Your task to perform on an android device: allow notifications from all sites in the chrome app Image 0: 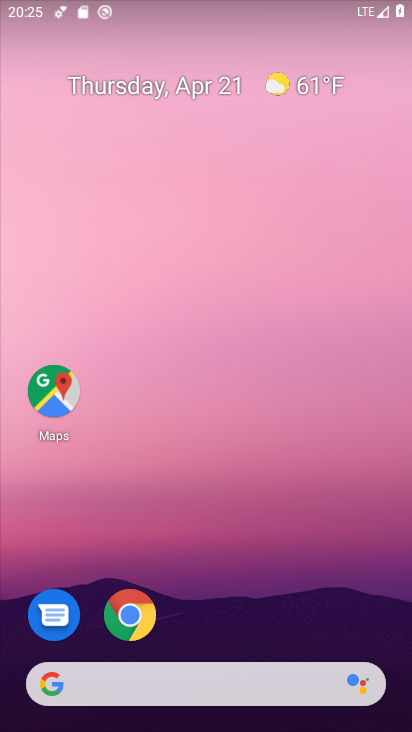
Step 0: click (215, 103)
Your task to perform on an android device: allow notifications from all sites in the chrome app Image 1: 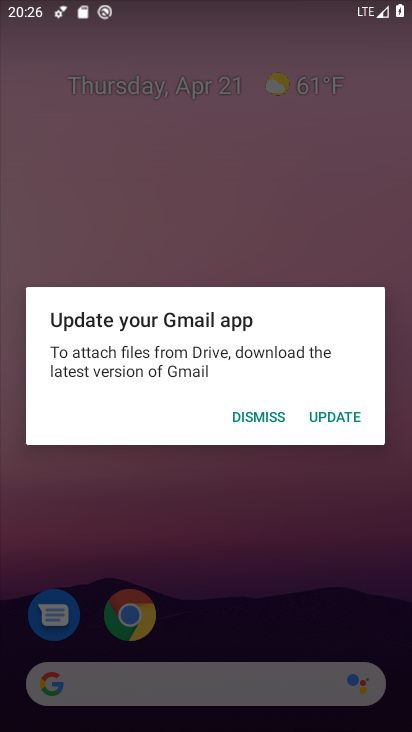
Step 1: press home button
Your task to perform on an android device: allow notifications from all sites in the chrome app Image 2: 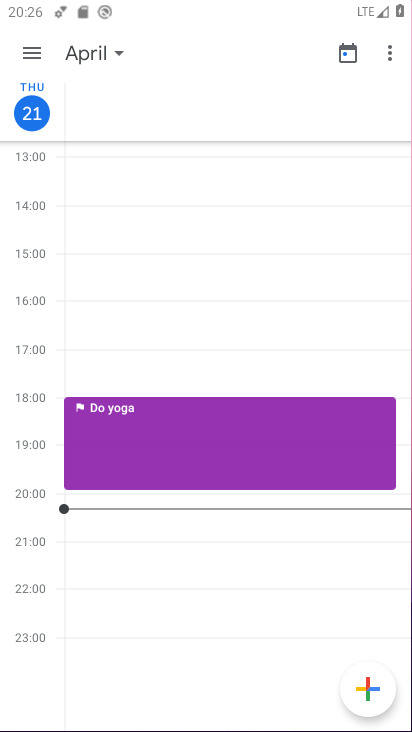
Step 2: drag from (216, 613) to (228, 19)
Your task to perform on an android device: allow notifications from all sites in the chrome app Image 3: 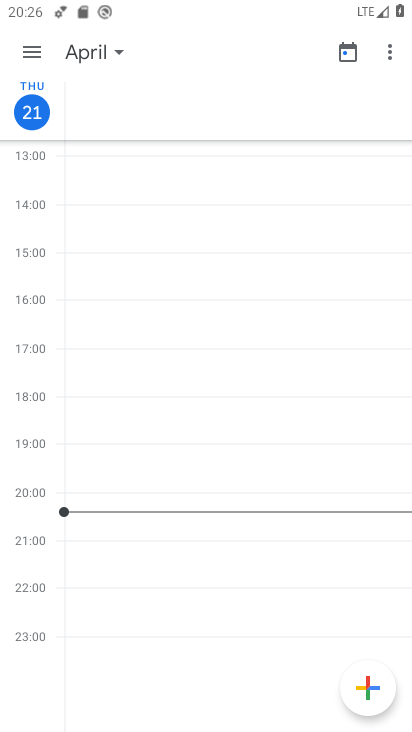
Step 3: drag from (220, 621) to (233, 243)
Your task to perform on an android device: allow notifications from all sites in the chrome app Image 4: 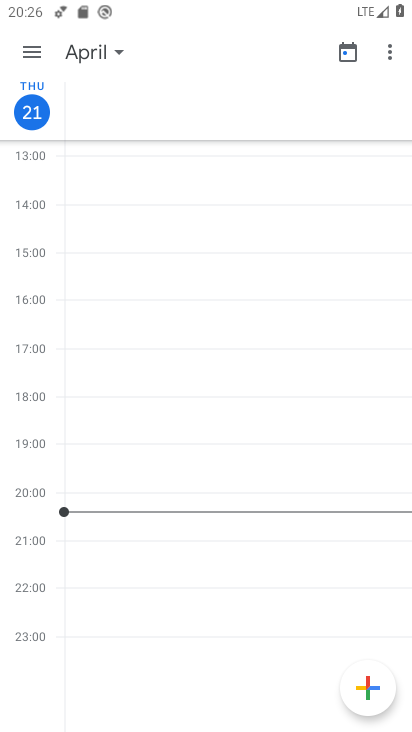
Step 4: drag from (230, 600) to (285, 263)
Your task to perform on an android device: allow notifications from all sites in the chrome app Image 5: 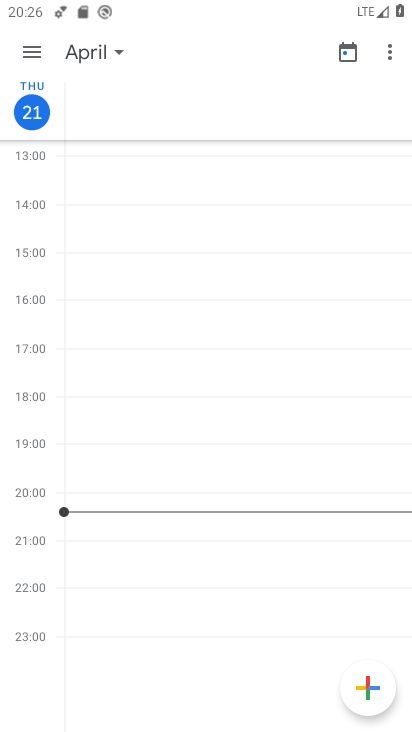
Step 5: drag from (209, 616) to (219, 202)
Your task to perform on an android device: allow notifications from all sites in the chrome app Image 6: 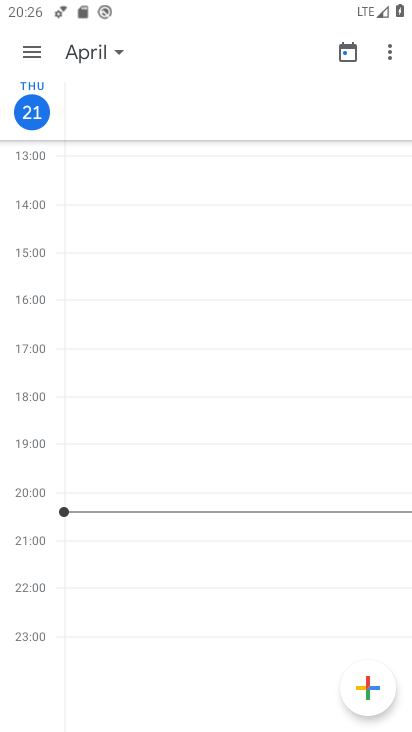
Step 6: click (81, 53)
Your task to perform on an android device: allow notifications from all sites in the chrome app Image 7: 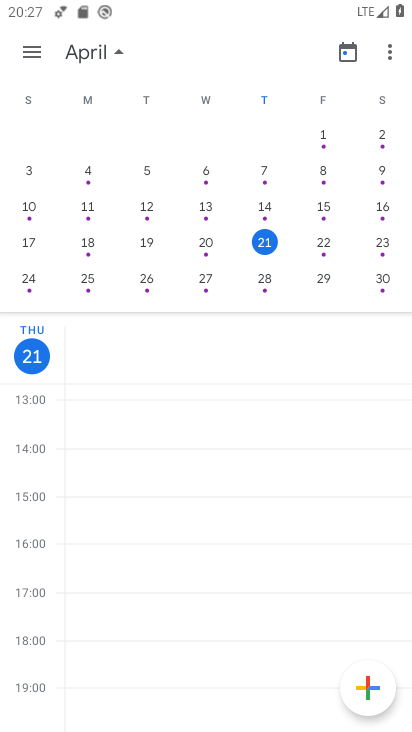
Step 7: press home button
Your task to perform on an android device: allow notifications from all sites in the chrome app Image 8: 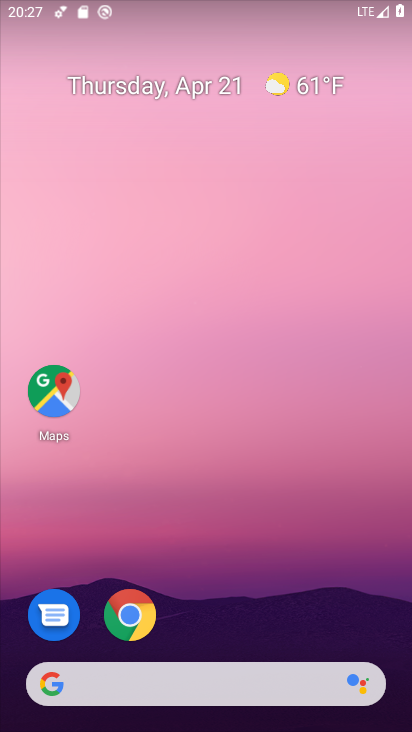
Step 8: click (136, 602)
Your task to perform on an android device: allow notifications from all sites in the chrome app Image 9: 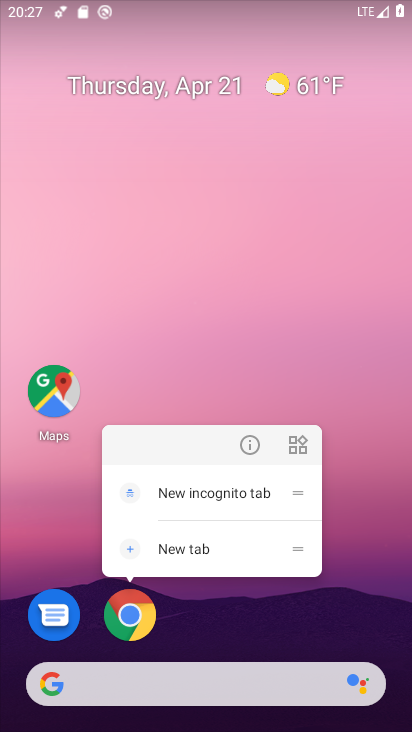
Step 9: click (244, 447)
Your task to perform on an android device: allow notifications from all sites in the chrome app Image 10: 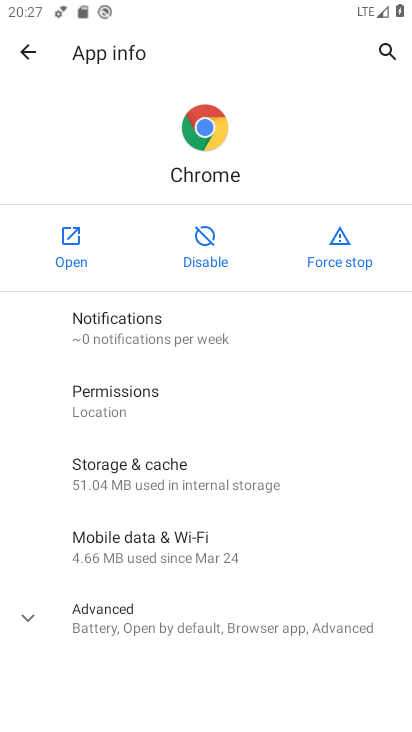
Step 10: click (63, 220)
Your task to perform on an android device: allow notifications from all sites in the chrome app Image 11: 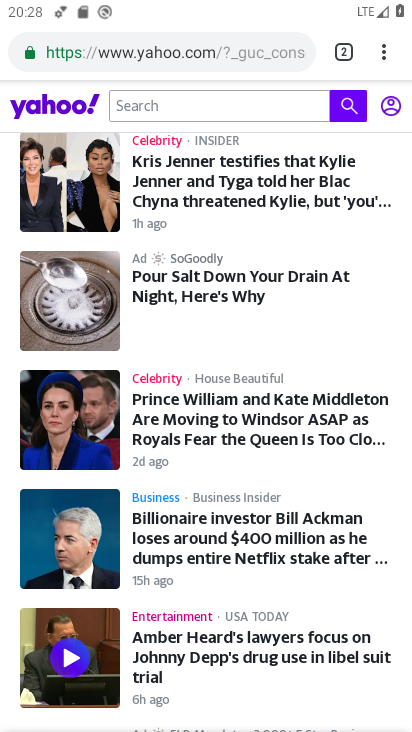
Step 11: click (383, 41)
Your task to perform on an android device: allow notifications from all sites in the chrome app Image 12: 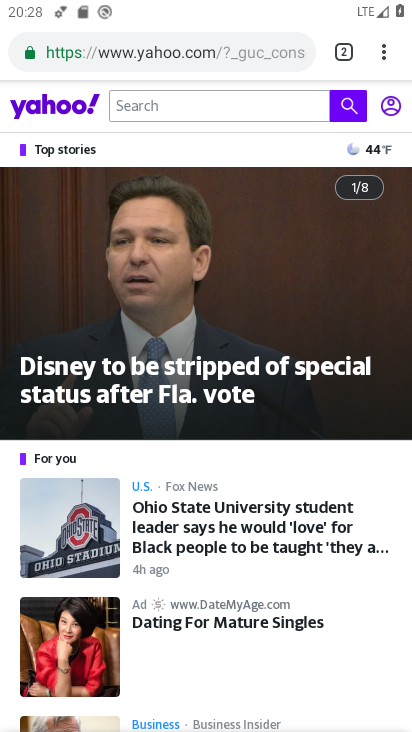
Step 12: drag from (391, 53) to (224, 637)
Your task to perform on an android device: allow notifications from all sites in the chrome app Image 13: 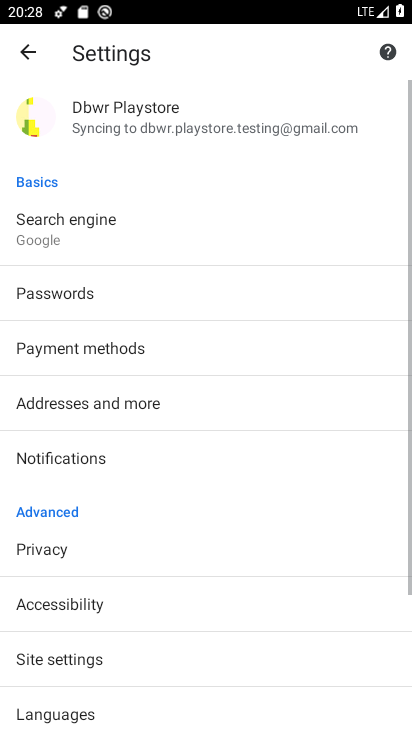
Step 13: drag from (201, 385) to (271, 146)
Your task to perform on an android device: allow notifications from all sites in the chrome app Image 14: 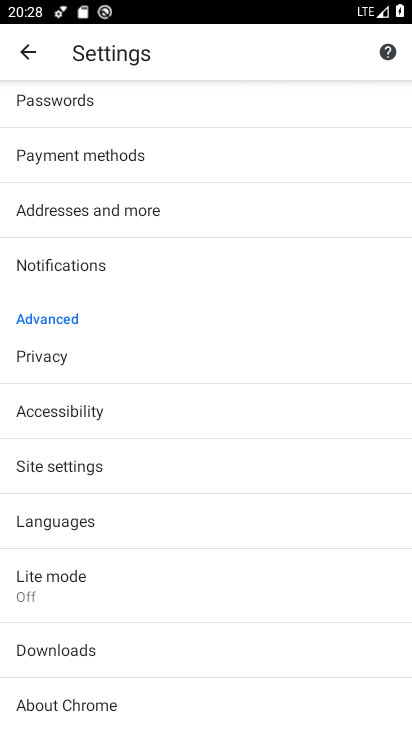
Step 14: click (118, 461)
Your task to perform on an android device: allow notifications from all sites in the chrome app Image 15: 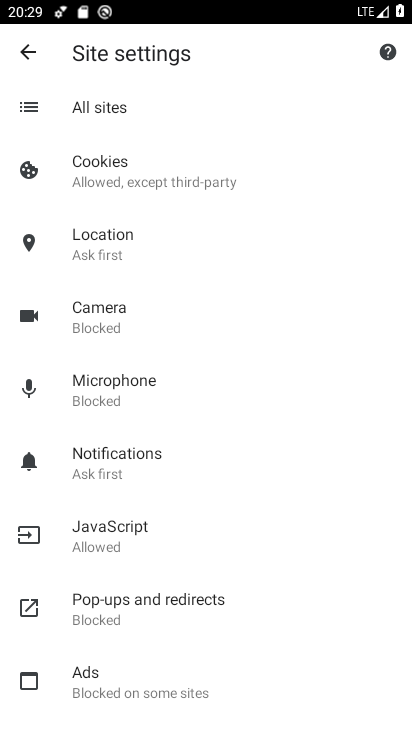
Step 15: click (142, 470)
Your task to perform on an android device: allow notifications from all sites in the chrome app Image 16: 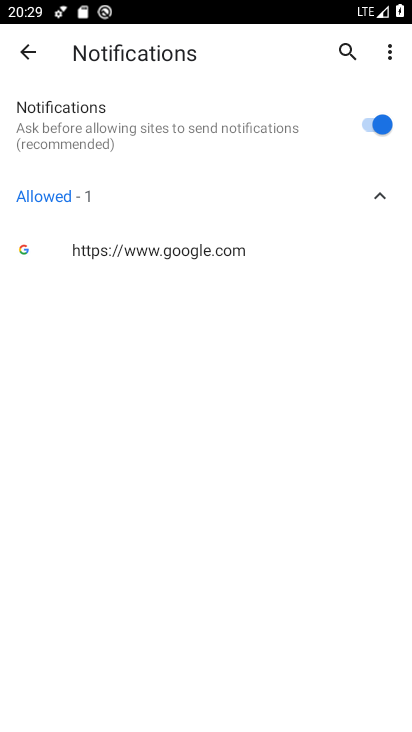
Step 16: task complete